Your task to perform on an android device: find which apps use the phone's location Image 0: 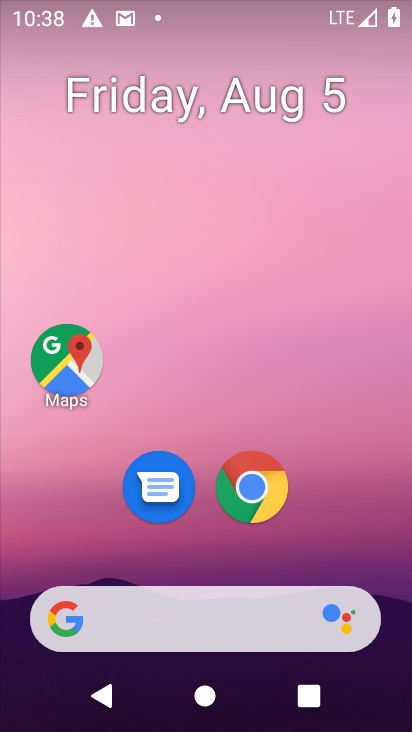
Step 0: drag from (213, 543) to (222, 32)
Your task to perform on an android device: find which apps use the phone's location Image 1: 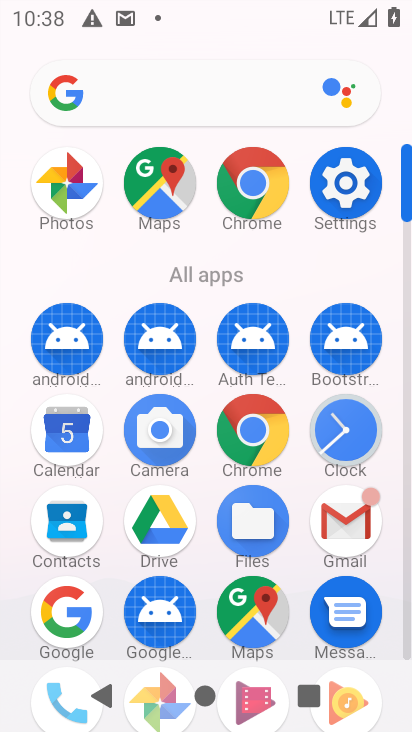
Step 1: click (352, 171)
Your task to perform on an android device: find which apps use the phone's location Image 2: 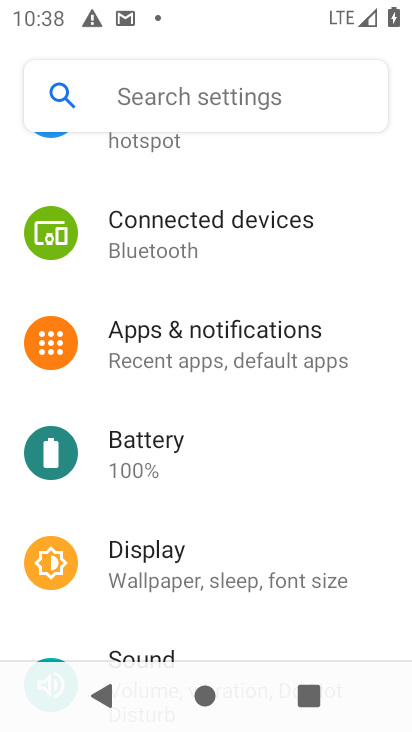
Step 2: drag from (190, 613) to (271, 68)
Your task to perform on an android device: find which apps use the phone's location Image 3: 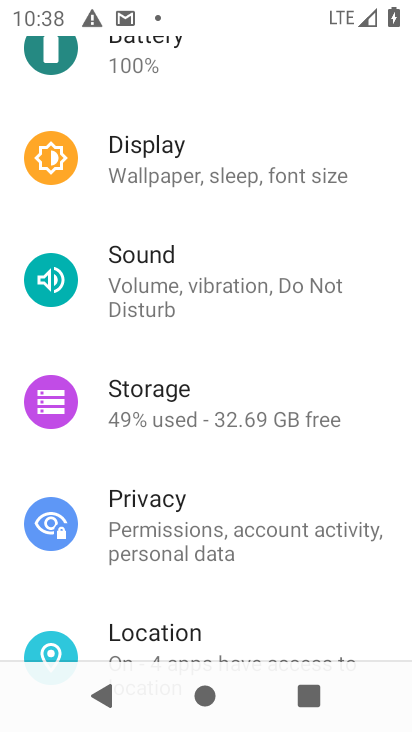
Step 3: click (149, 629)
Your task to perform on an android device: find which apps use the phone's location Image 4: 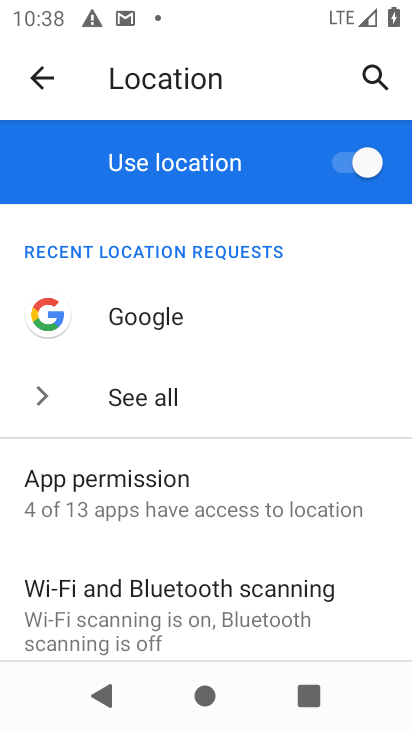
Step 4: click (149, 504)
Your task to perform on an android device: find which apps use the phone's location Image 5: 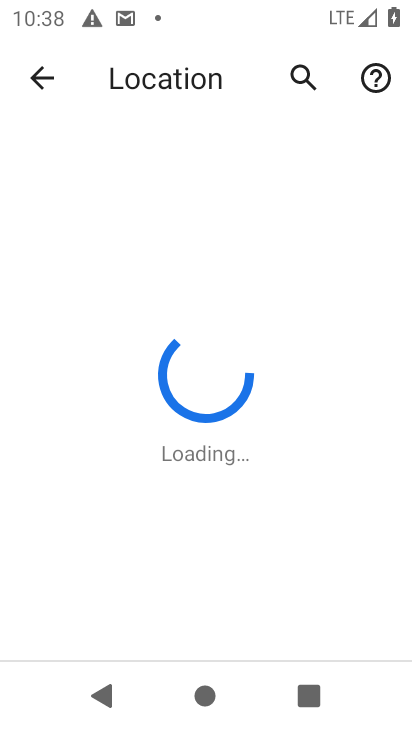
Step 5: task complete